Your task to perform on an android device: Do I have any events this weekend? Image 0: 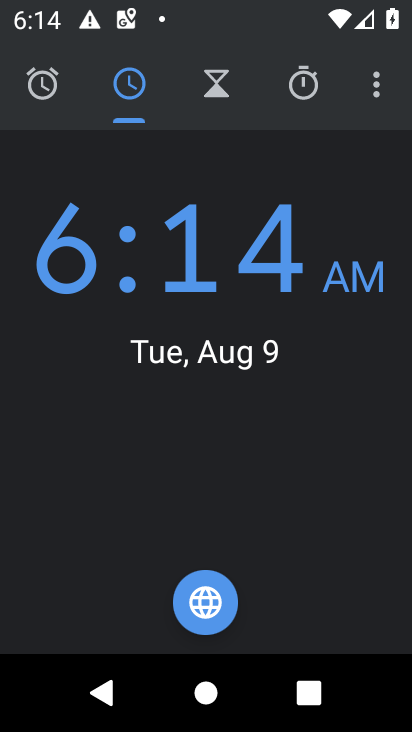
Step 0: press home button
Your task to perform on an android device: Do I have any events this weekend? Image 1: 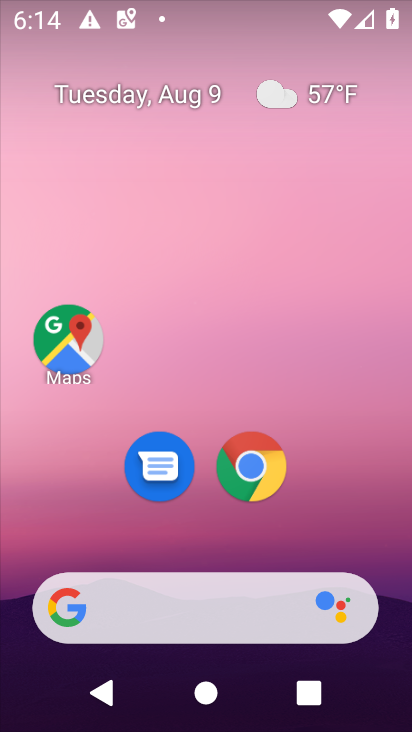
Step 1: drag from (190, 526) to (212, 19)
Your task to perform on an android device: Do I have any events this weekend? Image 2: 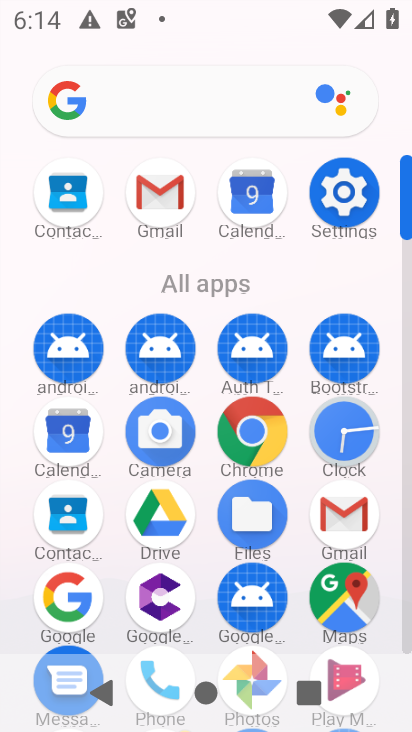
Step 2: click (72, 444)
Your task to perform on an android device: Do I have any events this weekend? Image 3: 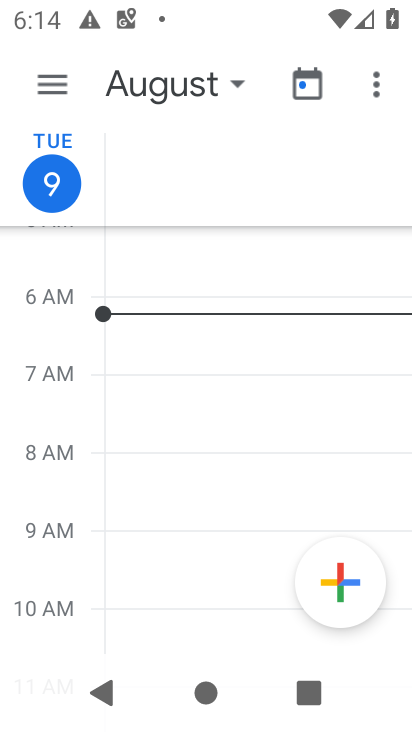
Step 3: click (136, 83)
Your task to perform on an android device: Do I have any events this weekend? Image 4: 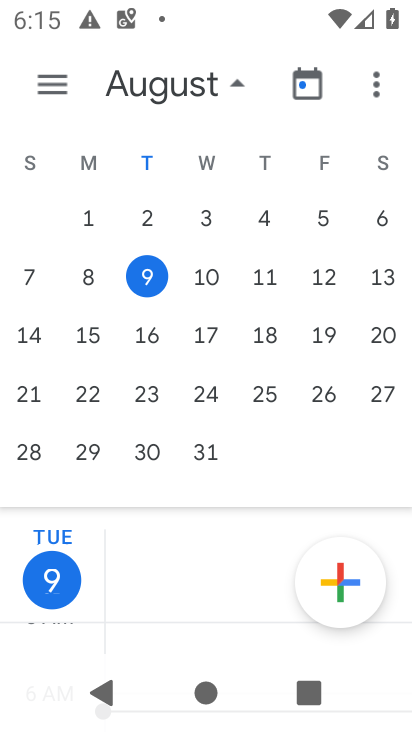
Step 4: click (45, 93)
Your task to perform on an android device: Do I have any events this weekend? Image 5: 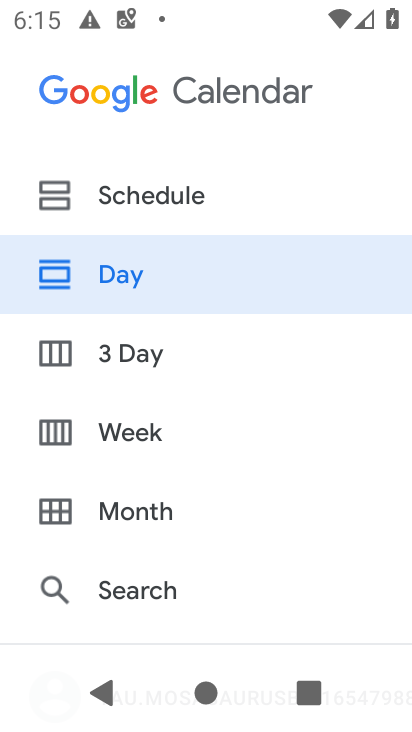
Step 5: click (158, 413)
Your task to perform on an android device: Do I have any events this weekend? Image 6: 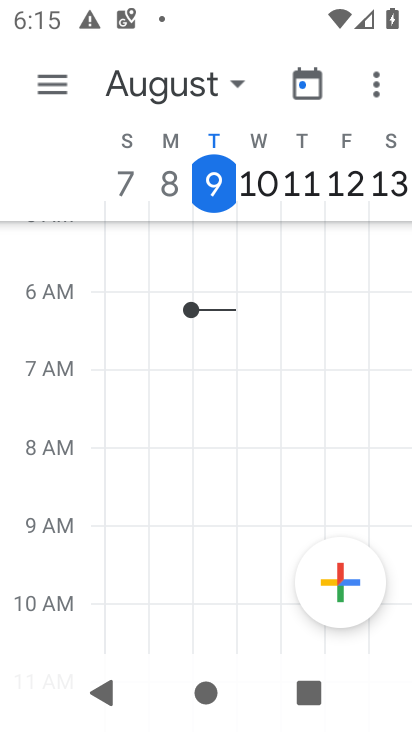
Step 6: click (50, 82)
Your task to perform on an android device: Do I have any events this weekend? Image 7: 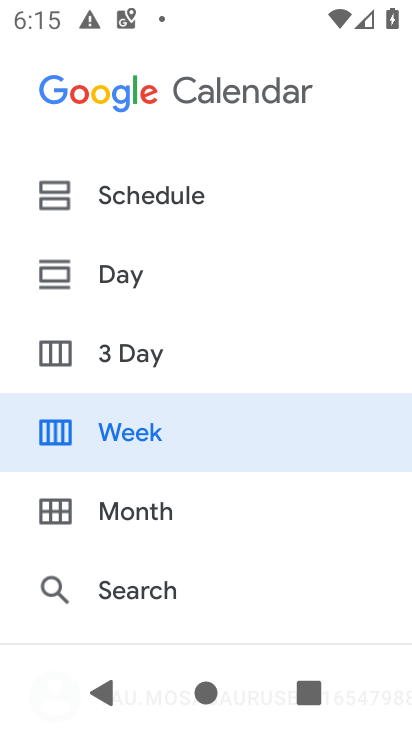
Step 7: click (140, 447)
Your task to perform on an android device: Do I have any events this weekend? Image 8: 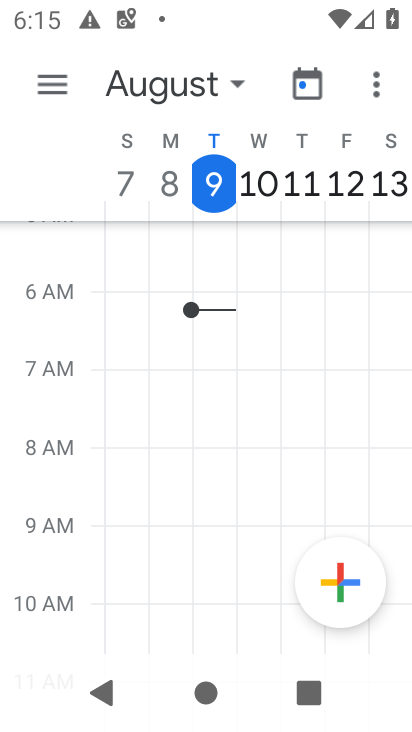
Step 8: task complete